Your task to perform on an android device: Go to network settings Image 0: 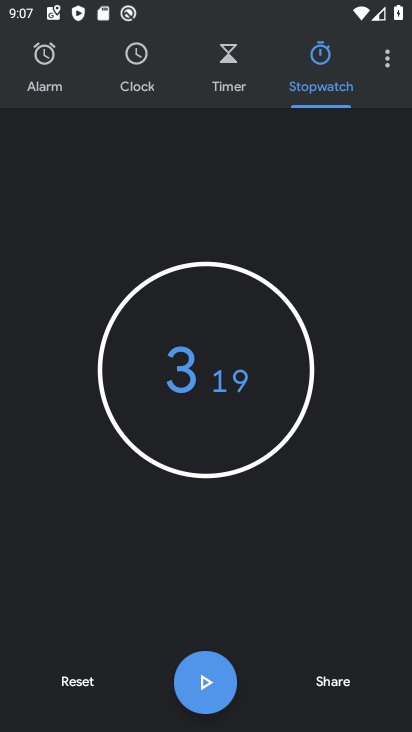
Step 0: press home button
Your task to perform on an android device: Go to network settings Image 1: 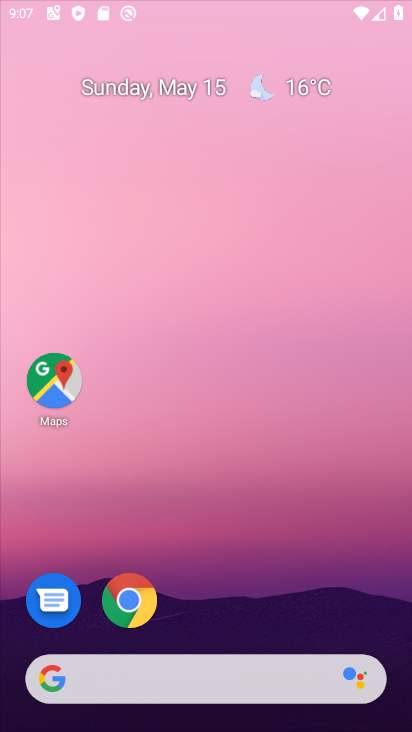
Step 1: drag from (281, 598) to (280, 123)
Your task to perform on an android device: Go to network settings Image 2: 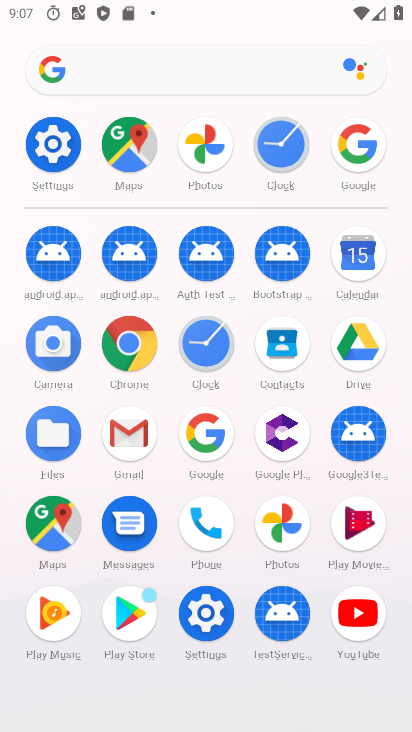
Step 2: click (50, 138)
Your task to perform on an android device: Go to network settings Image 3: 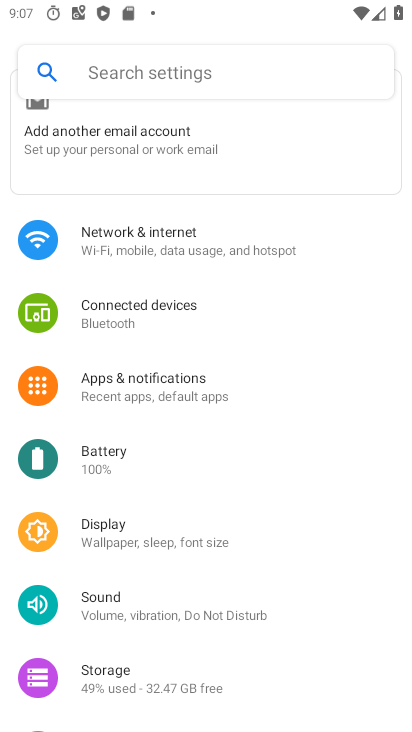
Step 3: click (137, 244)
Your task to perform on an android device: Go to network settings Image 4: 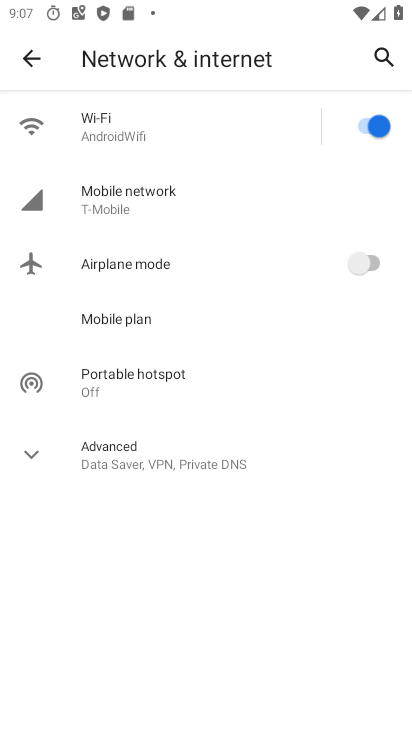
Step 4: click (135, 195)
Your task to perform on an android device: Go to network settings Image 5: 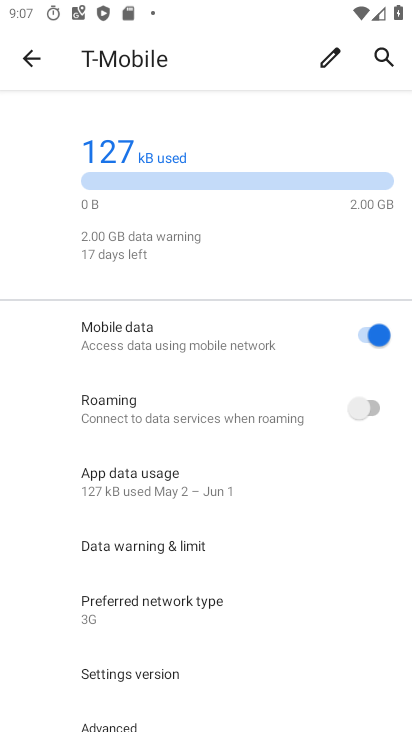
Step 5: task complete